Your task to perform on an android device: What's a good restaurant near me? Image 0: 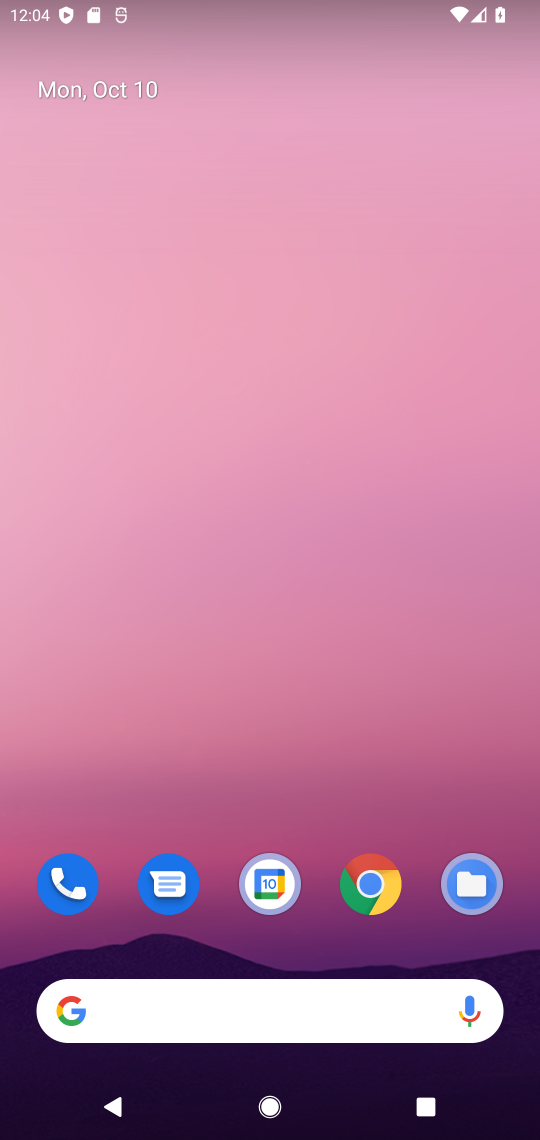
Step 0: click (380, 892)
Your task to perform on an android device: What's a good restaurant near me? Image 1: 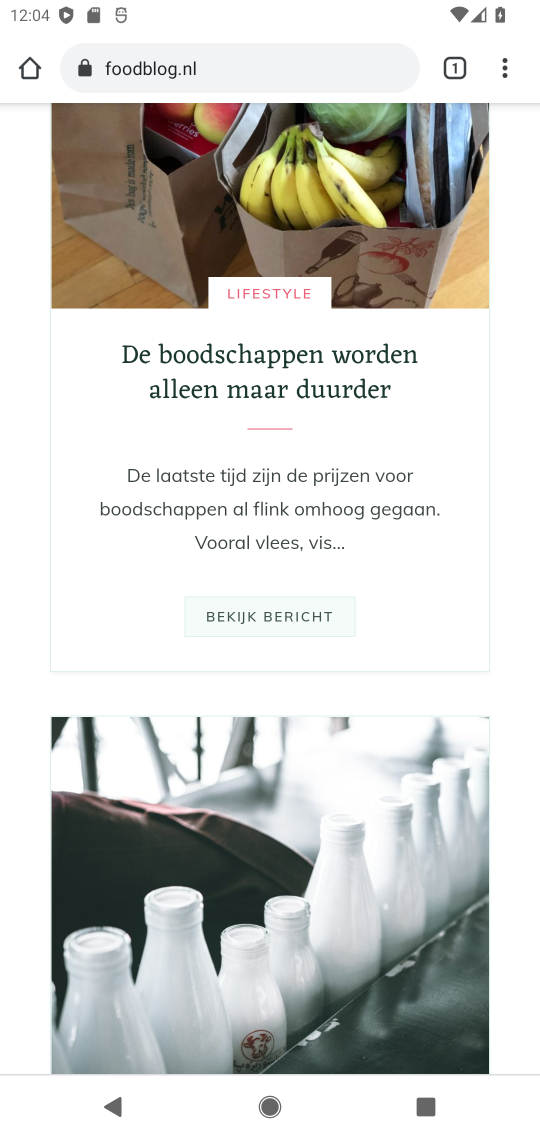
Step 1: click (245, 80)
Your task to perform on an android device: What's a good restaurant near me? Image 2: 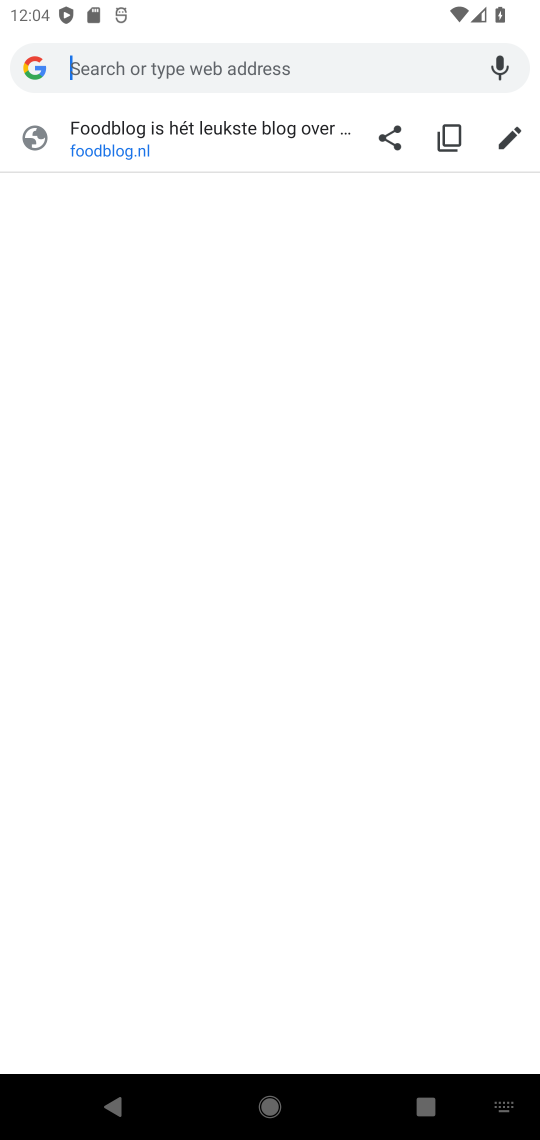
Step 2: type "good restaurant near me"
Your task to perform on an android device: What's a good restaurant near me? Image 3: 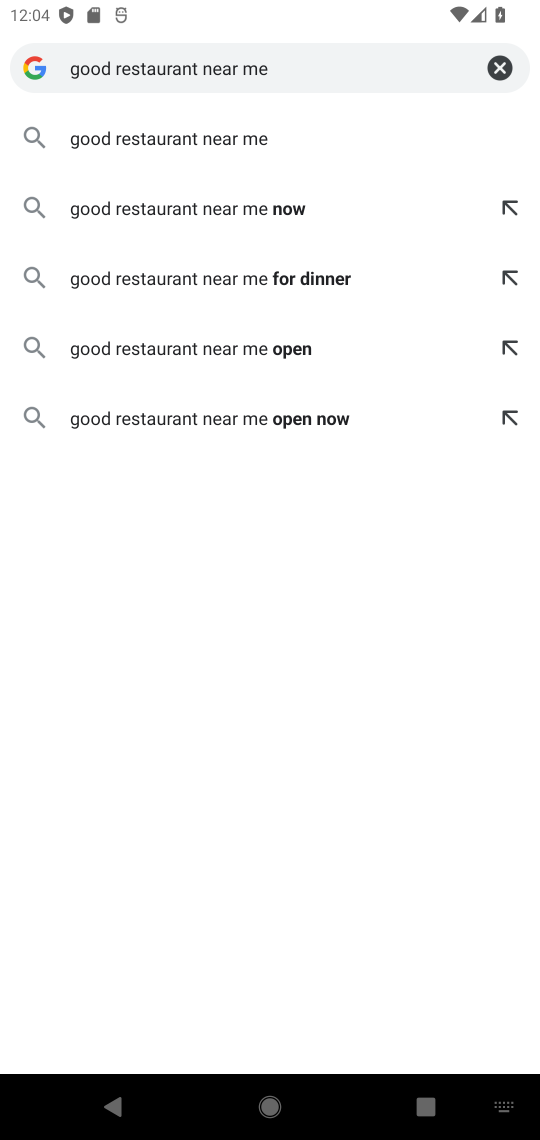
Step 3: press enter
Your task to perform on an android device: What's a good restaurant near me? Image 4: 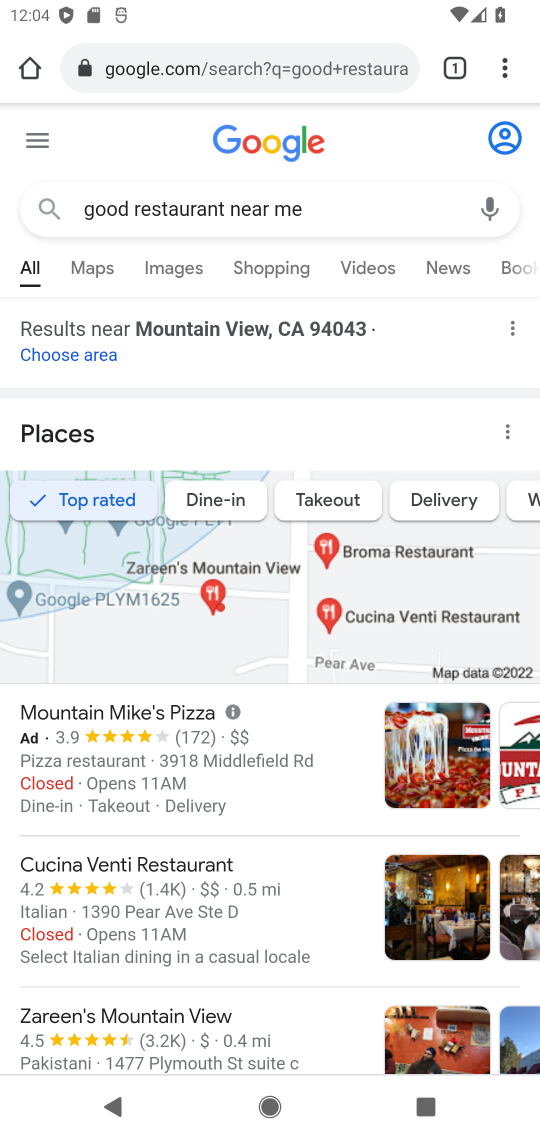
Step 4: drag from (133, 922) to (155, 336)
Your task to perform on an android device: What's a good restaurant near me? Image 5: 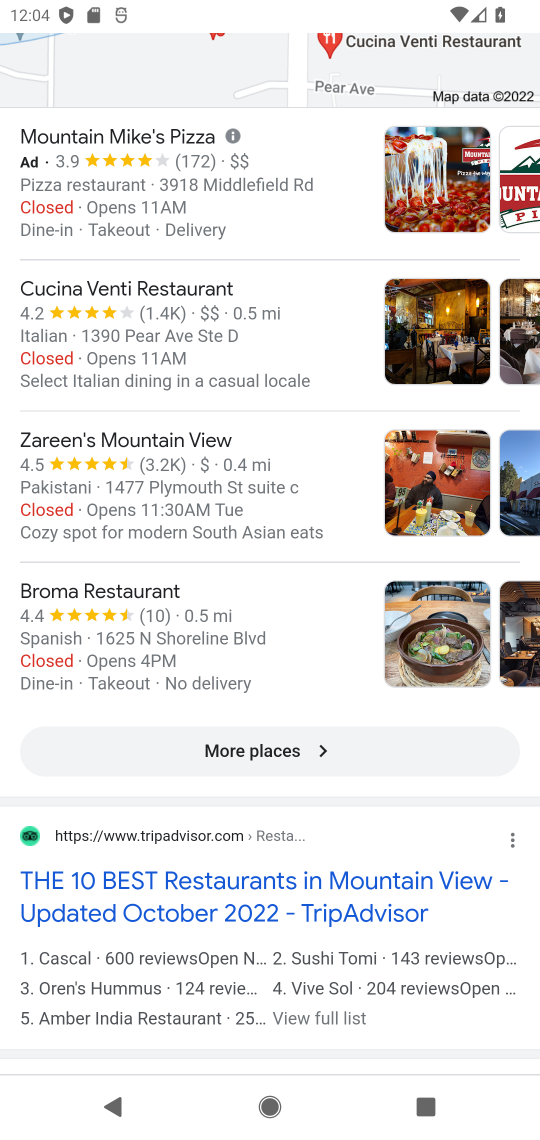
Step 5: click (278, 746)
Your task to perform on an android device: What's a good restaurant near me? Image 6: 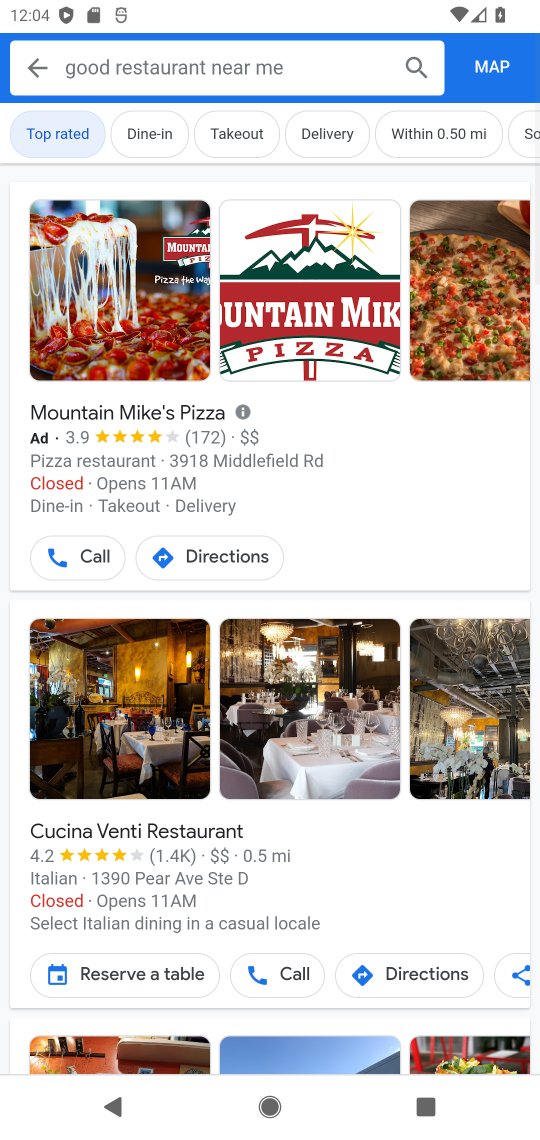
Step 6: task complete